Your task to perform on an android device: Open Wikipedia Image 0: 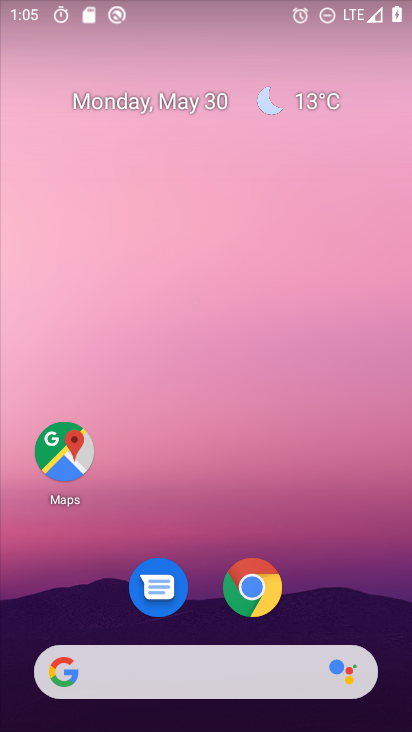
Step 0: click (251, 579)
Your task to perform on an android device: Open Wikipedia Image 1: 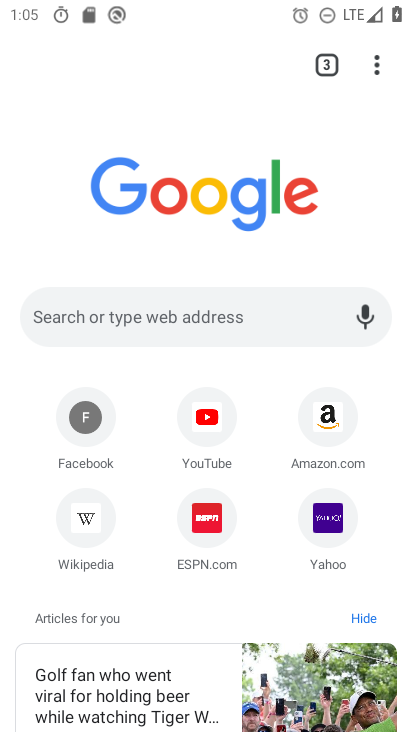
Step 1: click (74, 524)
Your task to perform on an android device: Open Wikipedia Image 2: 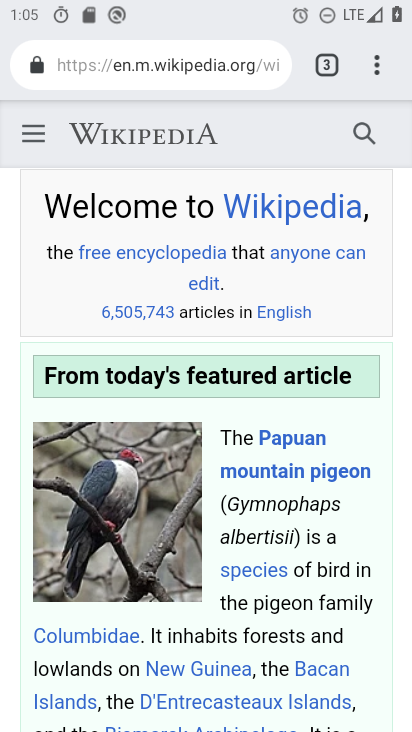
Step 2: task complete